Your task to perform on an android device: Open location settings Image 0: 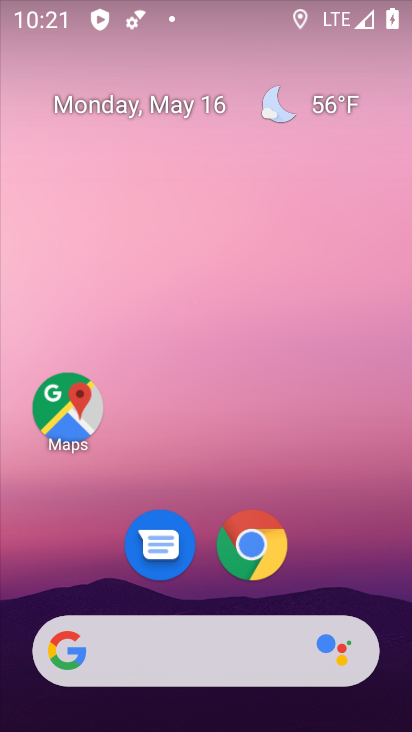
Step 0: drag from (209, 606) to (194, 80)
Your task to perform on an android device: Open location settings Image 1: 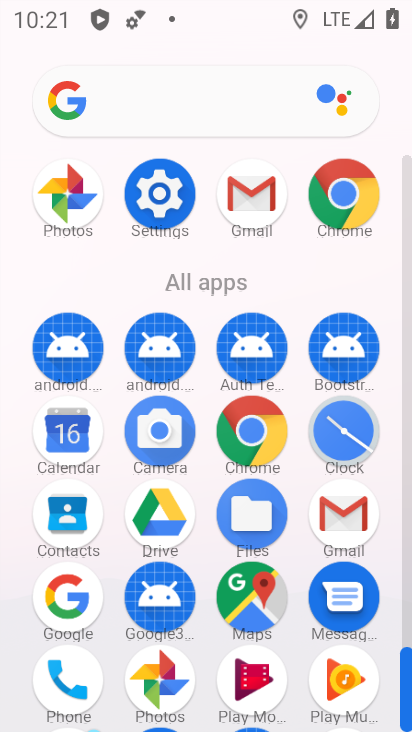
Step 1: click (163, 194)
Your task to perform on an android device: Open location settings Image 2: 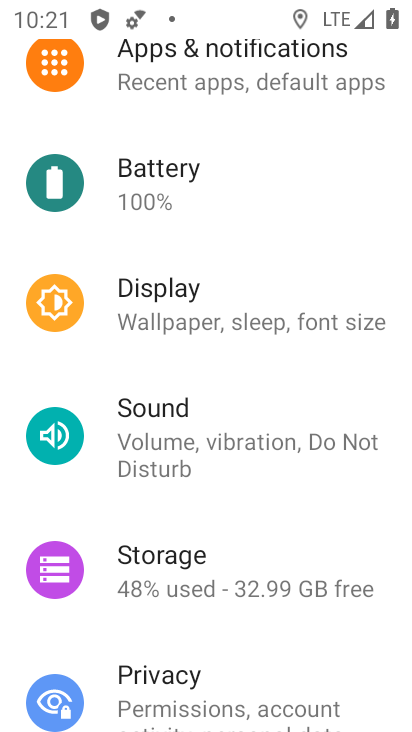
Step 2: drag from (218, 470) to (218, 170)
Your task to perform on an android device: Open location settings Image 3: 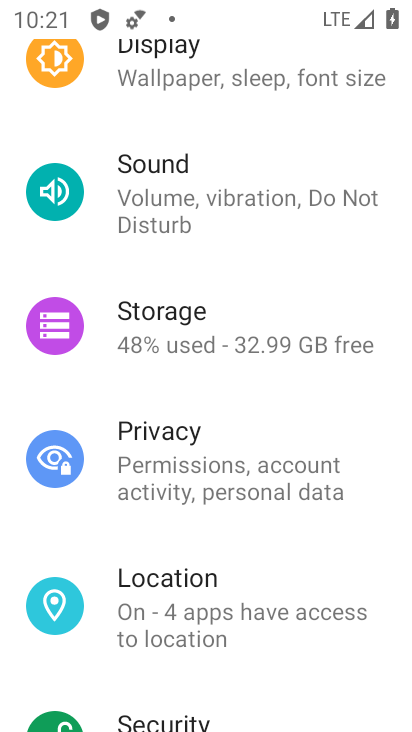
Step 3: click (203, 576)
Your task to perform on an android device: Open location settings Image 4: 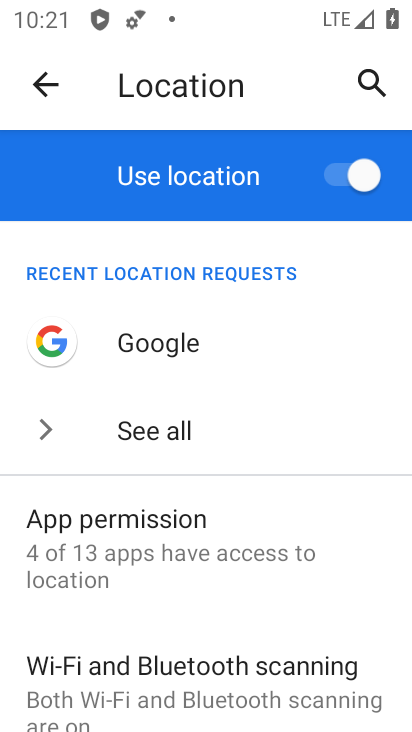
Step 4: drag from (231, 632) to (216, 265)
Your task to perform on an android device: Open location settings Image 5: 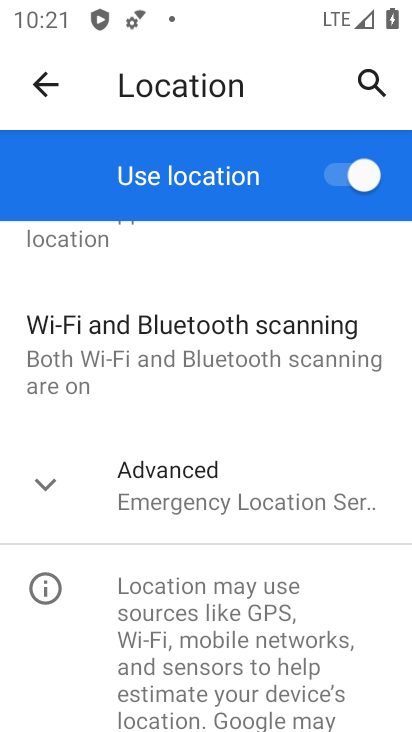
Step 5: click (245, 479)
Your task to perform on an android device: Open location settings Image 6: 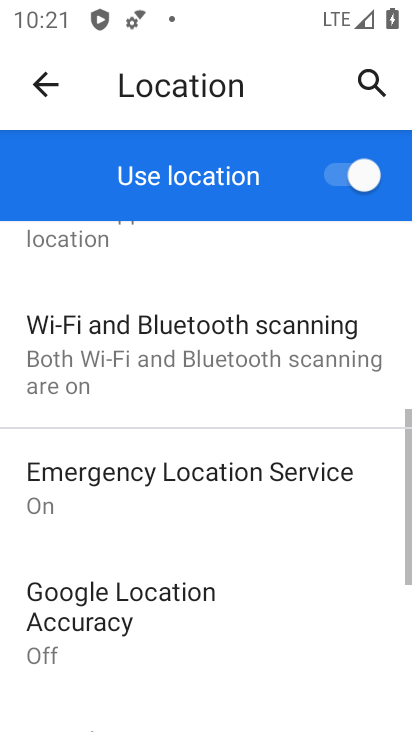
Step 6: task complete